Your task to perform on an android device: Go to notification settings Image 0: 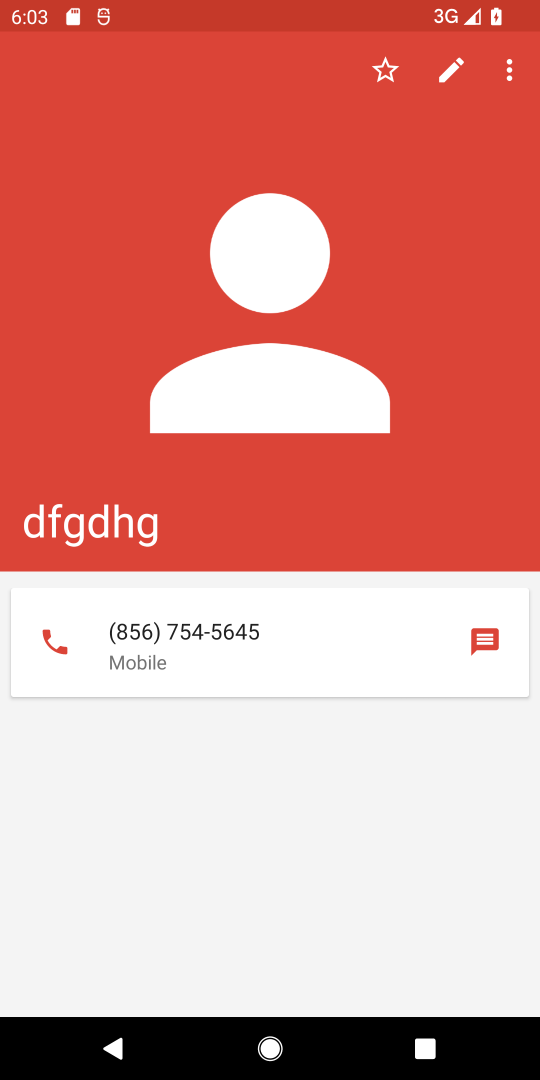
Step 0: press home button
Your task to perform on an android device: Go to notification settings Image 1: 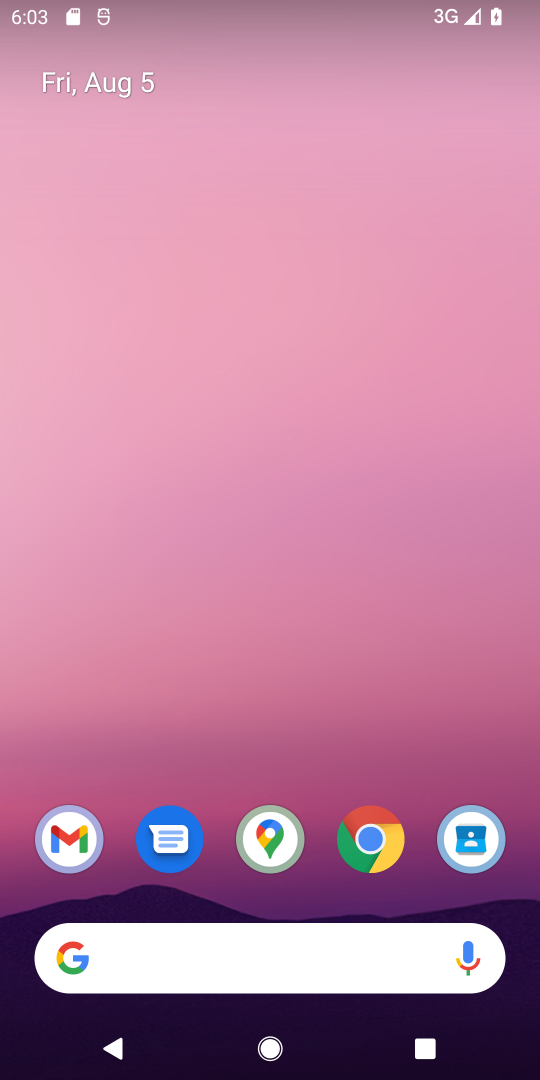
Step 1: drag from (271, 749) to (205, 263)
Your task to perform on an android device: Go to notification settings Image 2: 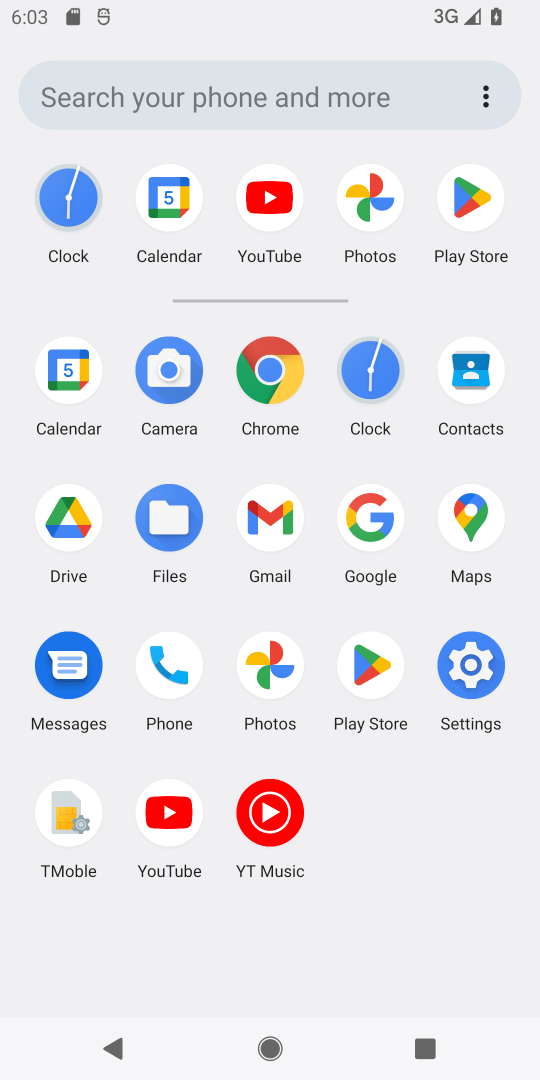
Step 2: click (451, 704)
Your task to perform on an android device: Go to notification settings Image 3: 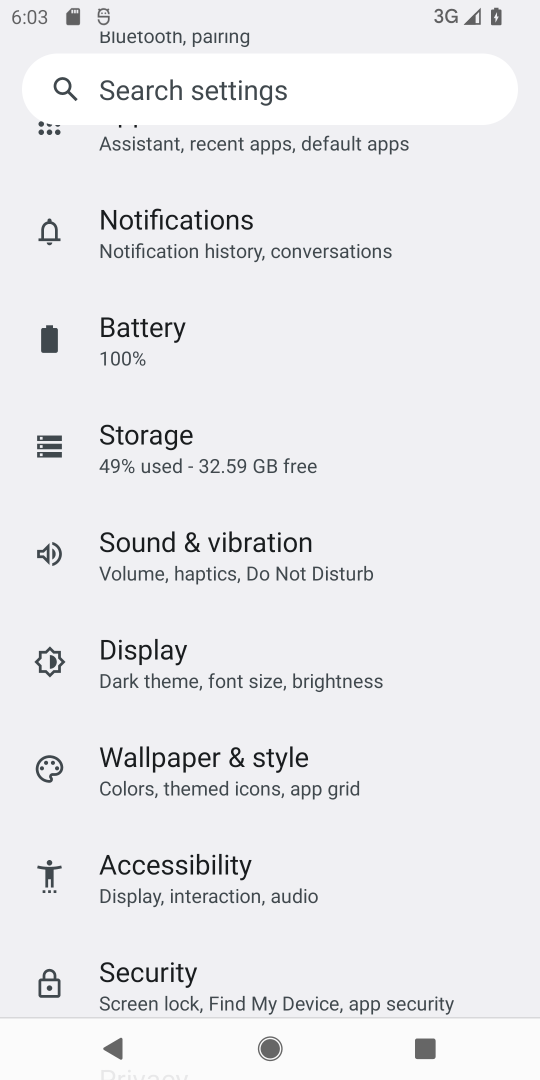
Step 3: task complete